Your task to perform on an android device: Open Google Chrome and open the bookmarks view Image 0: 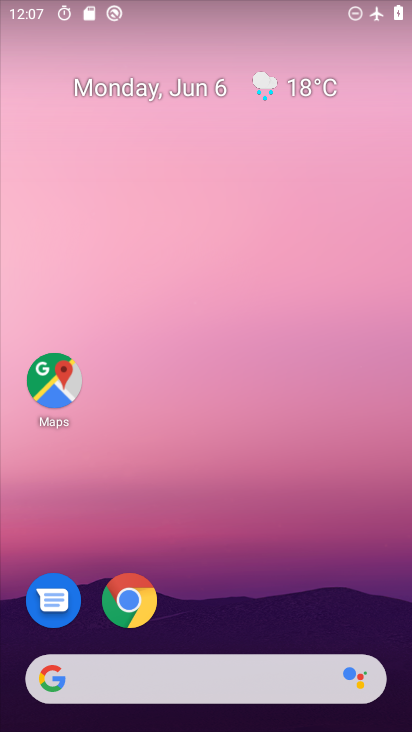
Step 0: click (129, 621)
Your task to perform on an android device: Open Google Chrome and open the bookmarks view Image 1: 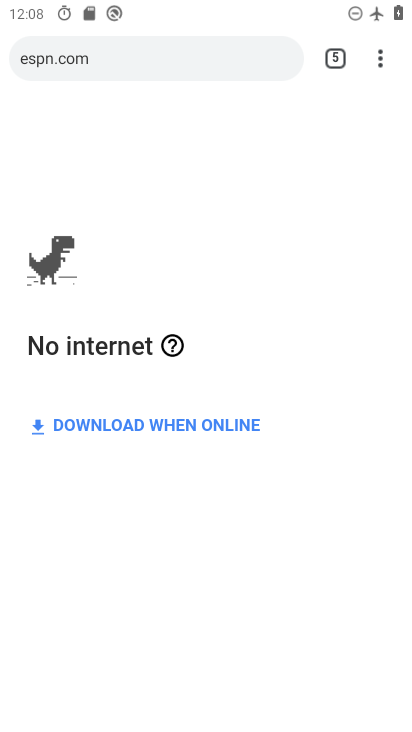
Step 1: task complete